Your task to perform on an android device: turn on airplane mode Image 0: 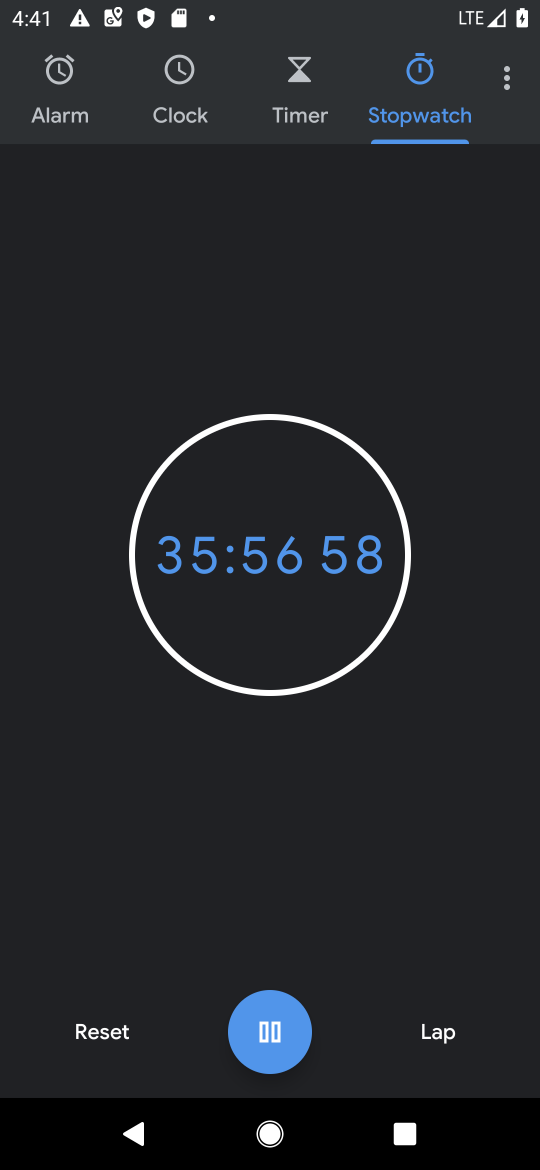
Step 0: drag from (253, 18) to (233, 873)
Your task to perform on an android device: turn on airplane mode Image 1: 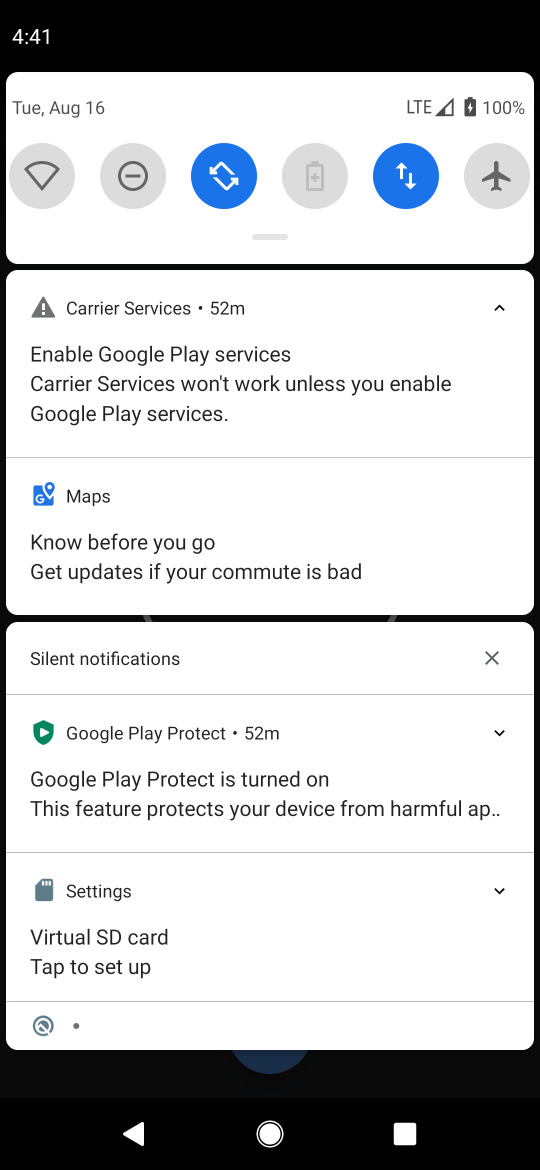
Step 1: click (505, 184)
Your task to perform on an android device: turn on airplane mode Image 2: 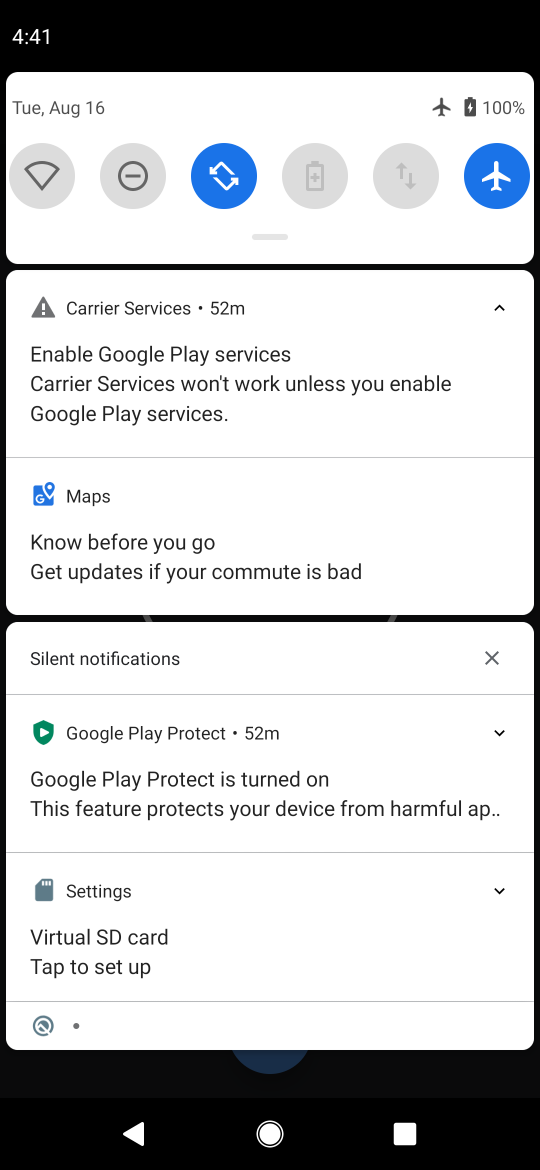
Step 2: task complete